Your task to perform on an android device: What's on my calendar tomorrow? Image 0: 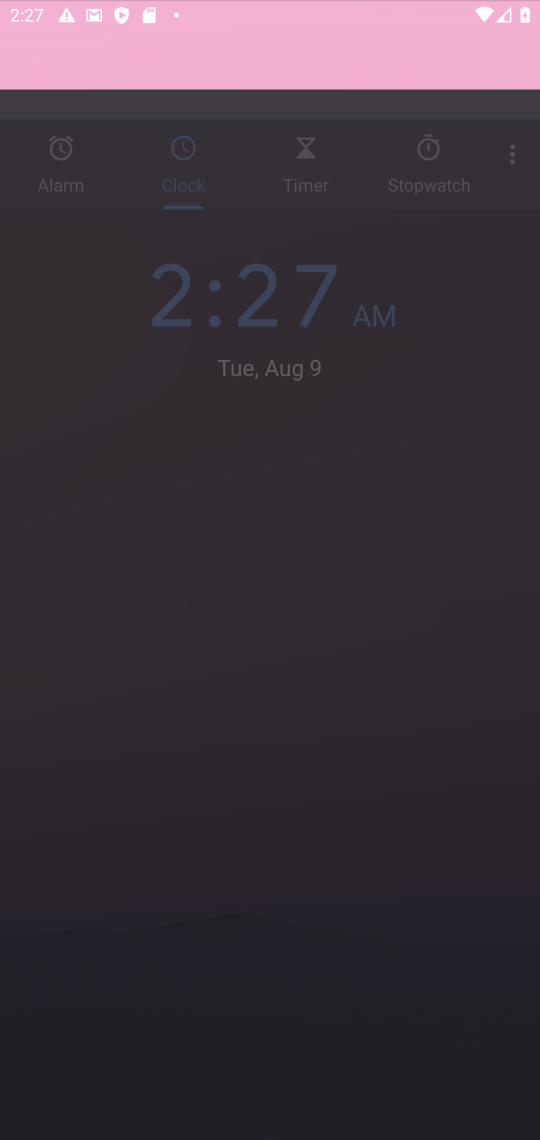
Step 0: press home button
Your task to perform on an android device: What's on my calendar tomorrow? Image 1: 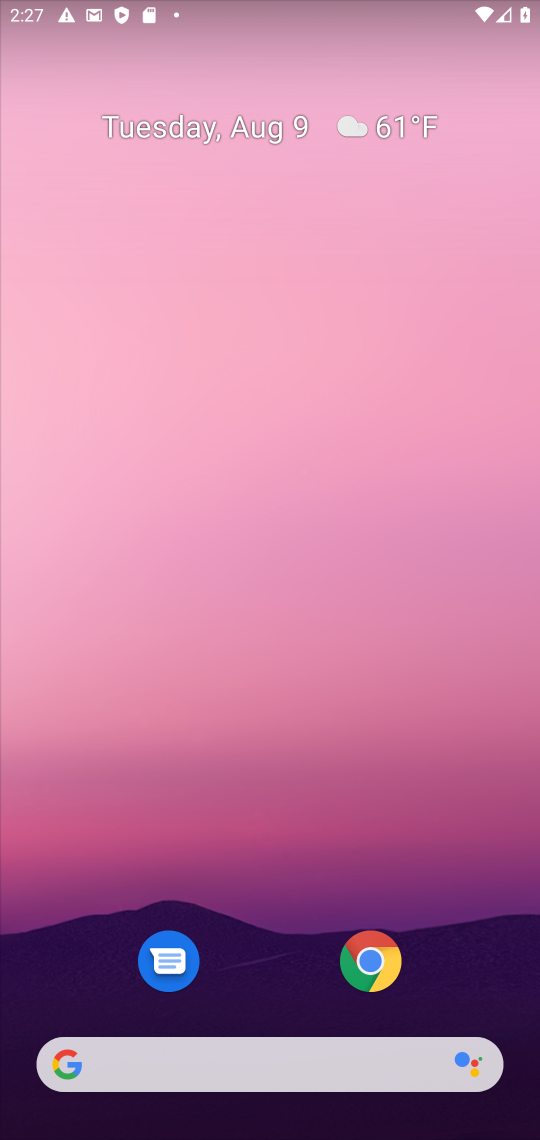
Step 1: drag from (240, 405) to (240, 294)
Your task to perform on an android device: What's on my calendar tomorrow? Image 2: 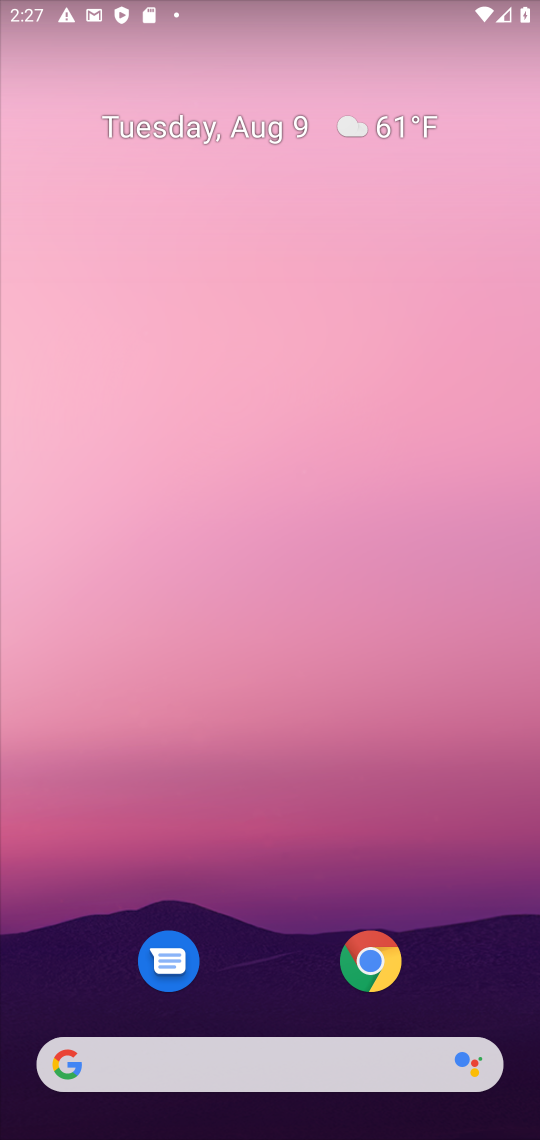
Step 2: drag from (242, 179) to (242, 64)
Your task to perform on an android device: What's on my calendar tomorrow? Image 3: 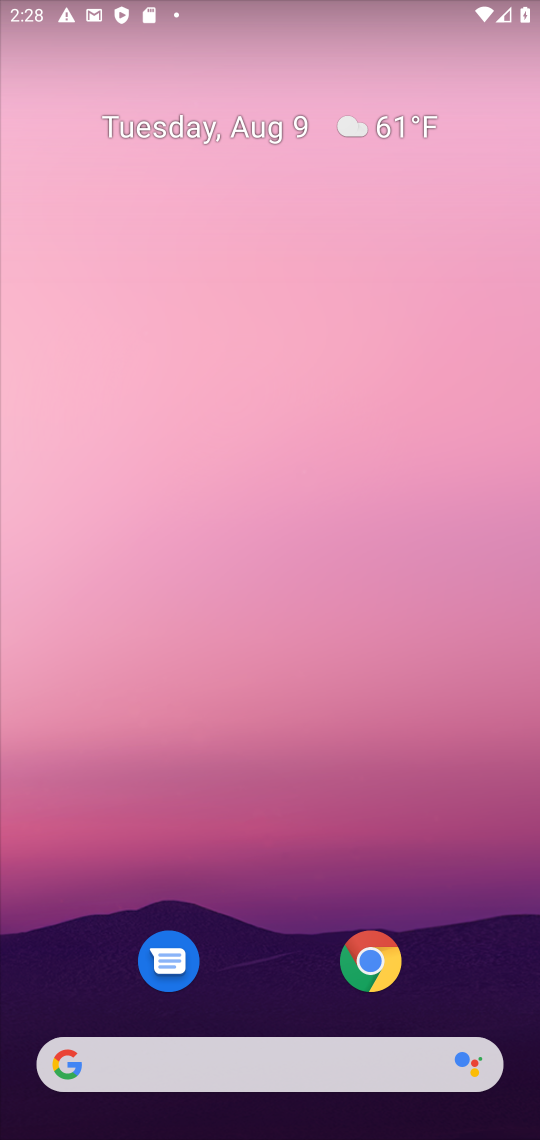
Step 3: click (281, 87)
Your task to perform on an android device: What's on my calendar tomorrow? Image 4: 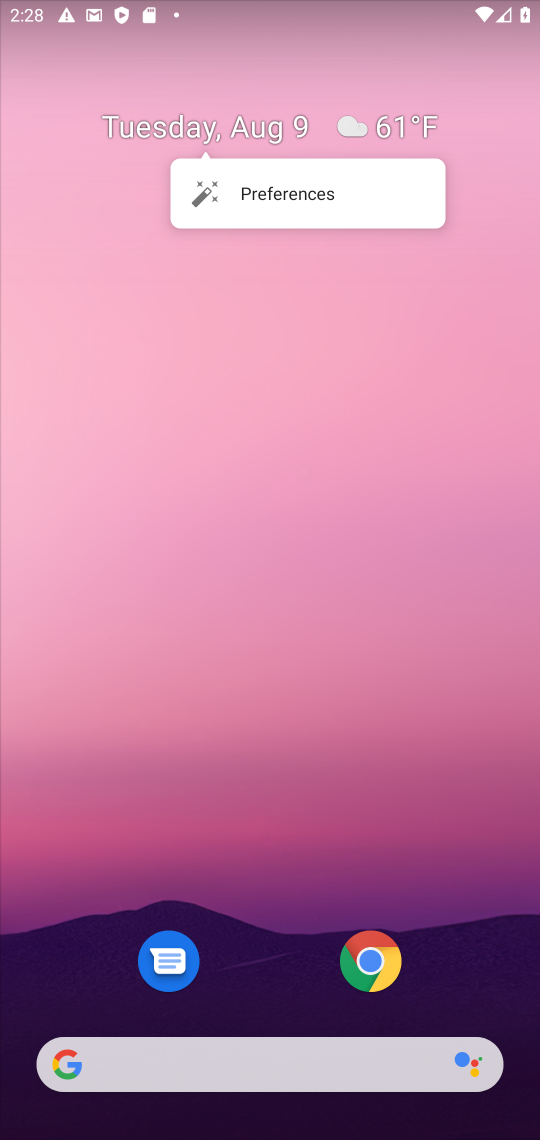
Step 4: click (269, 647)
Your task to perform on an android device: What's on my calendar tomorrow? Image 5: 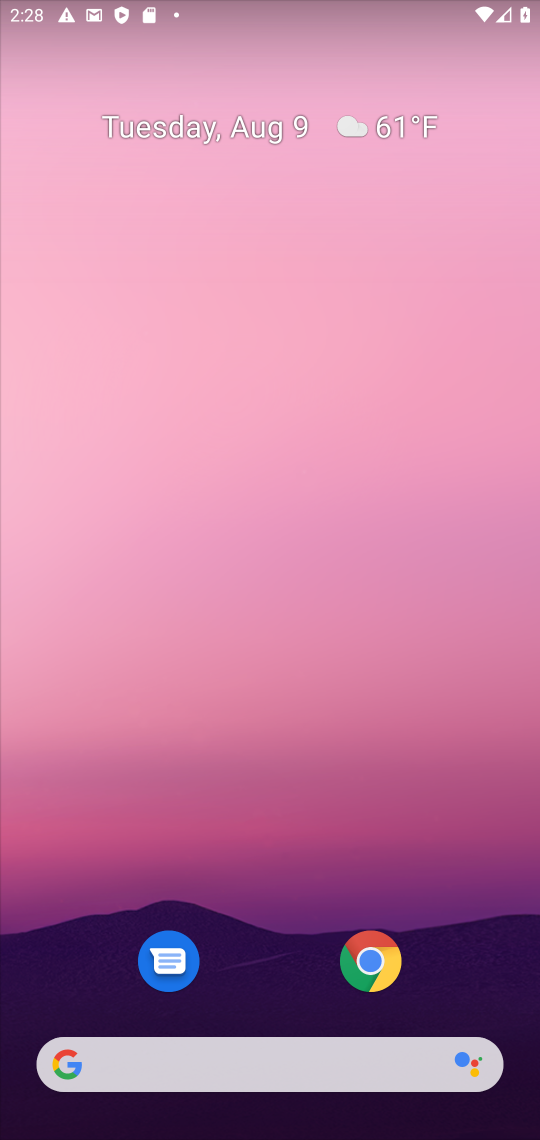
Step 5: drag from (267, 993) to (308, 221)
Your task to perform on an android device: What's on my calendar tomorrow? Image 6: 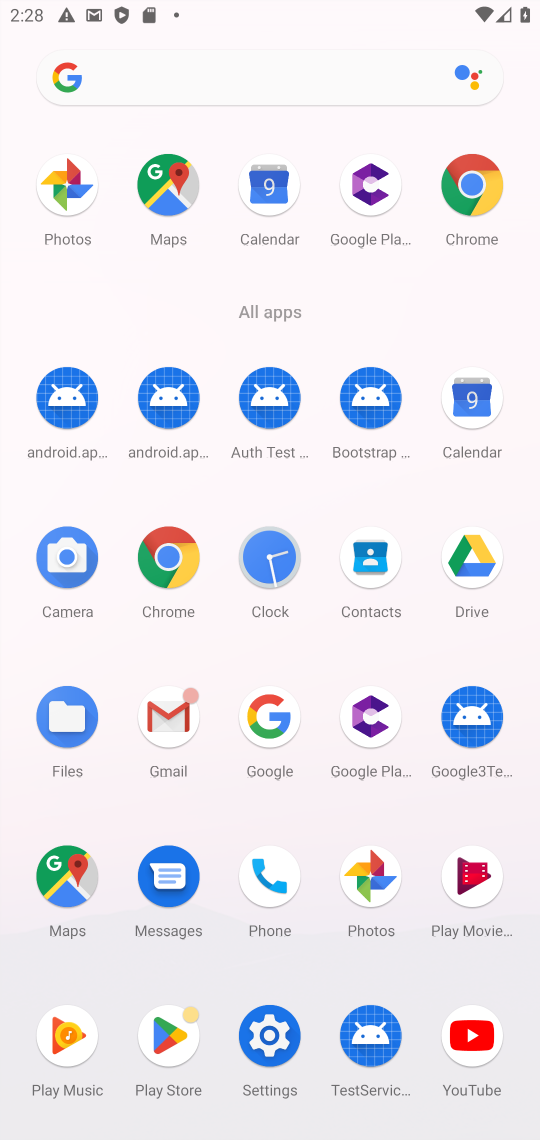
Step 6: click (483, 394)
Your task to perform on an android device: What's on my calendar tomorrow? Image 7: 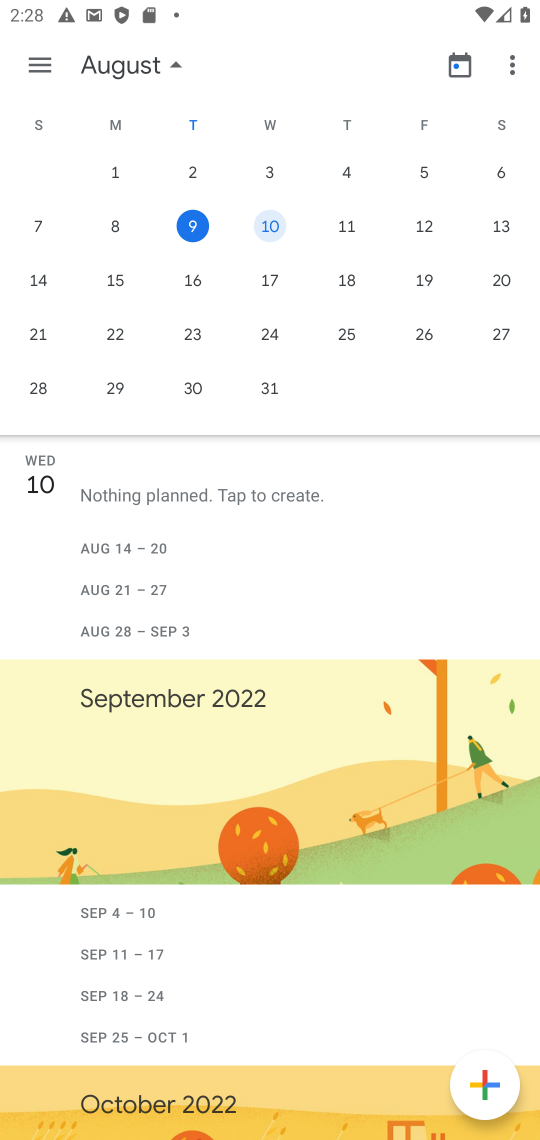
Step 7: click (268, 215)
Your task to perform on an android device: What's on my calendar tomorrow? Image 8: 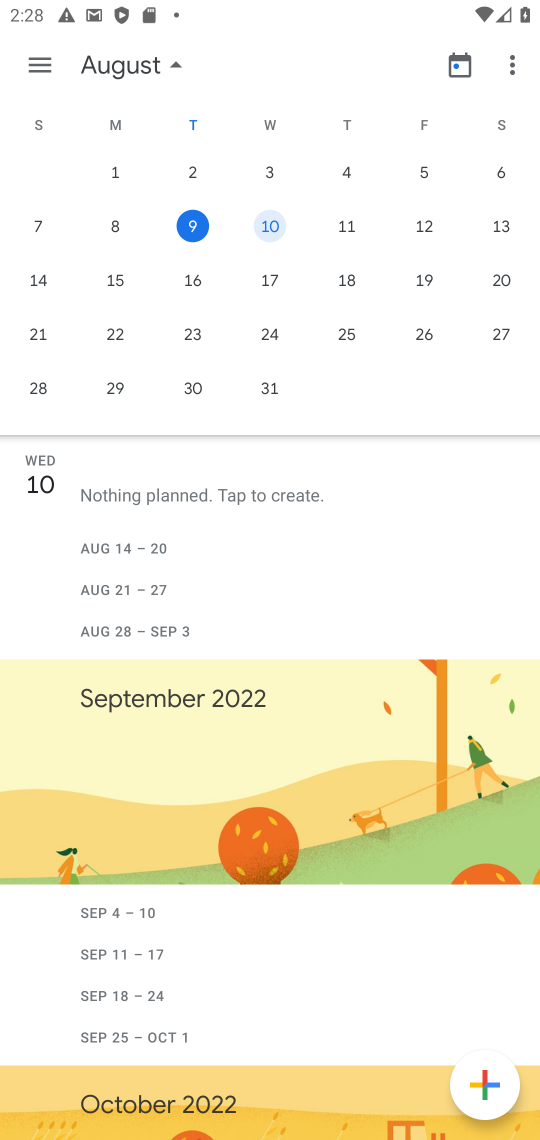
Step 8: task complete